Your task to perform on an android device: change the upload size in google photos Image 0: 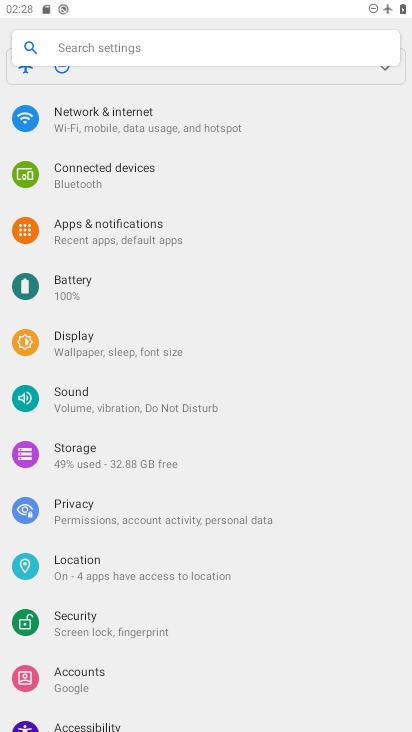
Step 0: press home button
Your task to perform on an android device: change the upload size in google photos Image 1: 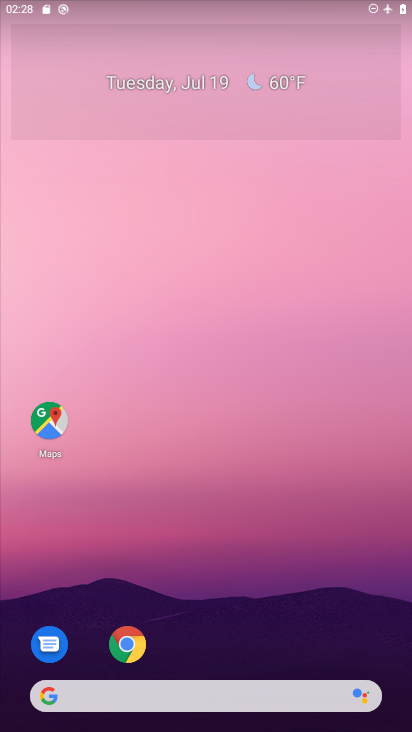
Step 1: drag from (176, 669) to (106, 163)
Your task to perform on an android device: change the upload size in google photos Image 2: 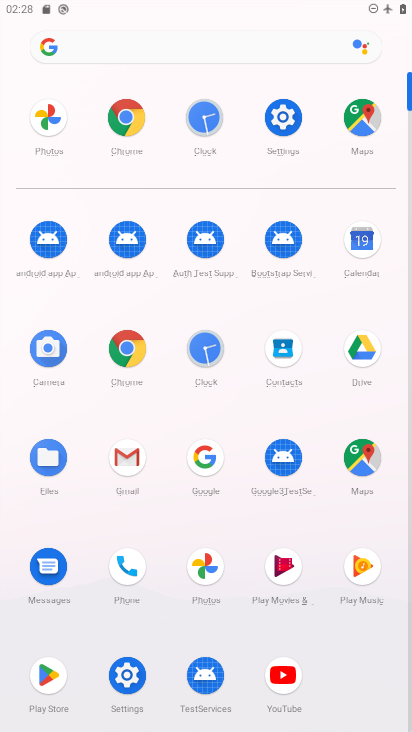
Step 2: click (187, 563)
Your task to perform on an android device: change the upload size in google photos Image 3: 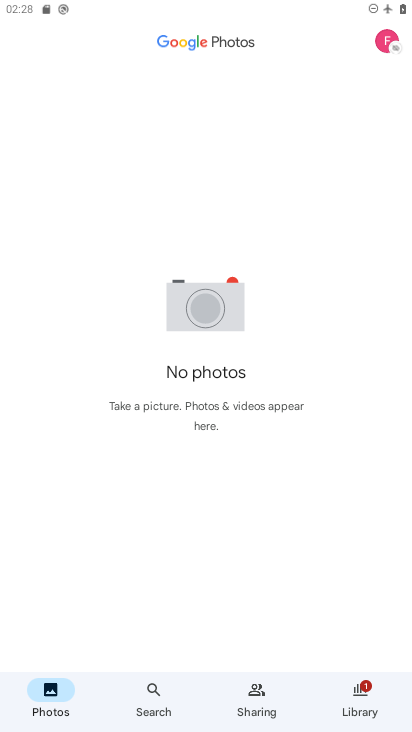
Step 3: click (391, 49)
Your task to perform on an android device: change the upload size in google photos Image 4: 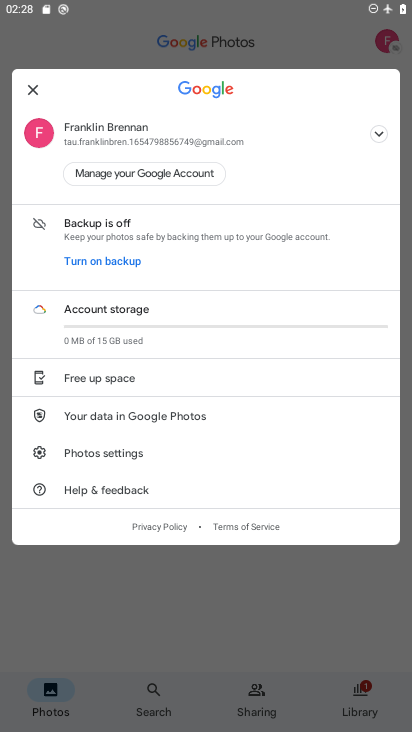
Step 4: click (120, 451)
Your task to perform on an android device: change the upload size in google photos Image 5: 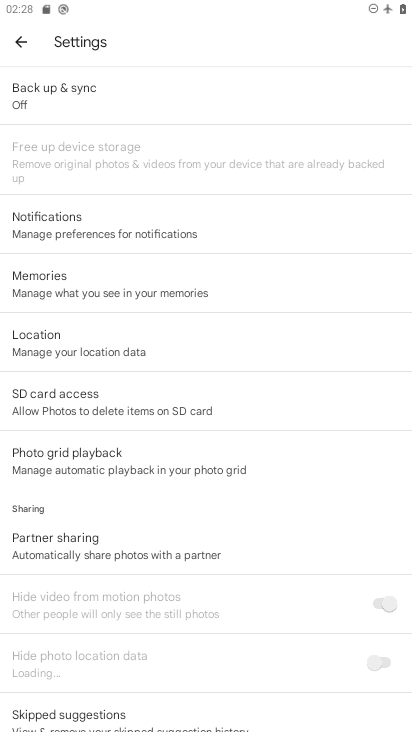
Step 5: click (66, 99)
Your task to perform on an android device: change the upload size in google photos Image 6: 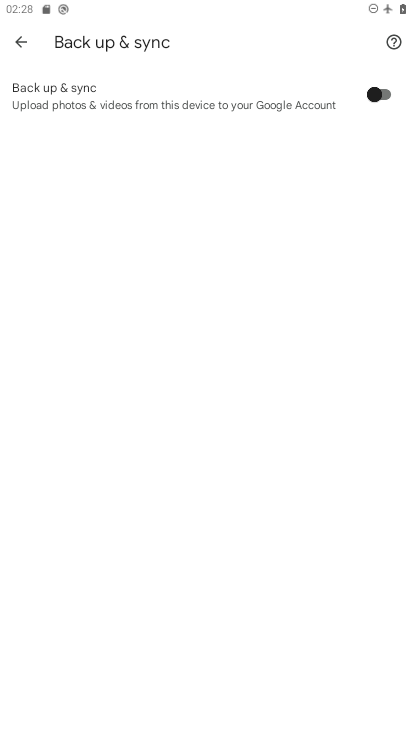
Step 6: click (369, 90)
Your task to perform on an android device: change the upload size in google photos Image 7: 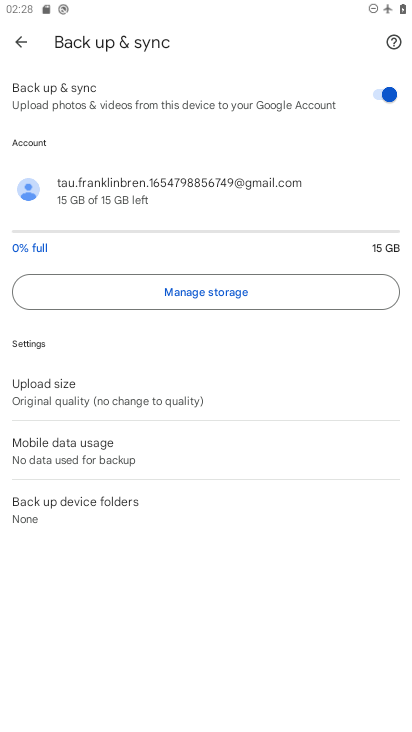
Step 7: click (69, 403)
Your task to perform on an android device: change the upload size in google photos Image 8: 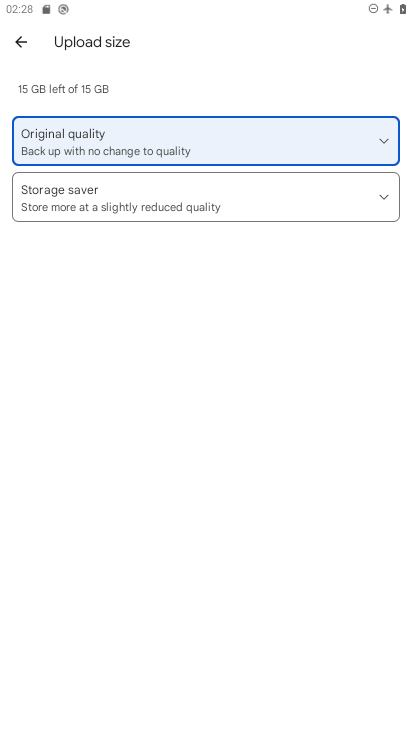
Step 8: click (97, 205)
Your task to perform on an android device: change the upload size in google photos Image 9: 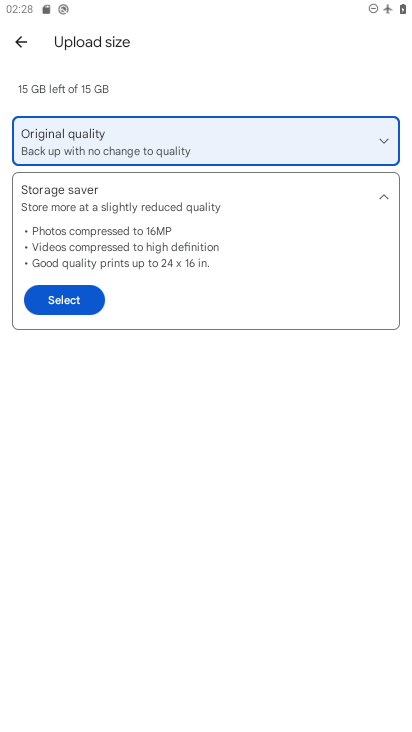
Step 9: click (385, 136)
Your task to perform on an android device: change the upload size in google photos Image 10: 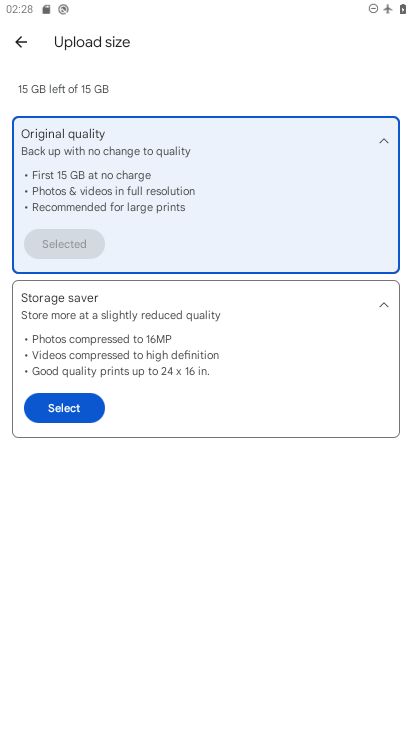
Step 10: click (55, 413)
Your task to perform on an android device: change the upload size in google photos Image 11: 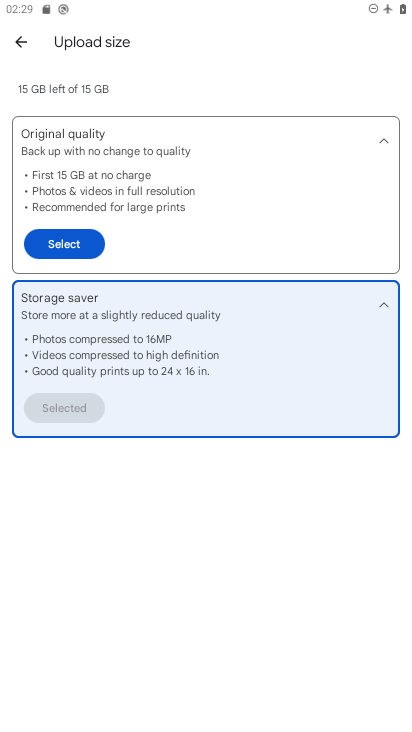
Step 11: task complete